Your task to perform on an android device: When is my next meeting? Image 0: 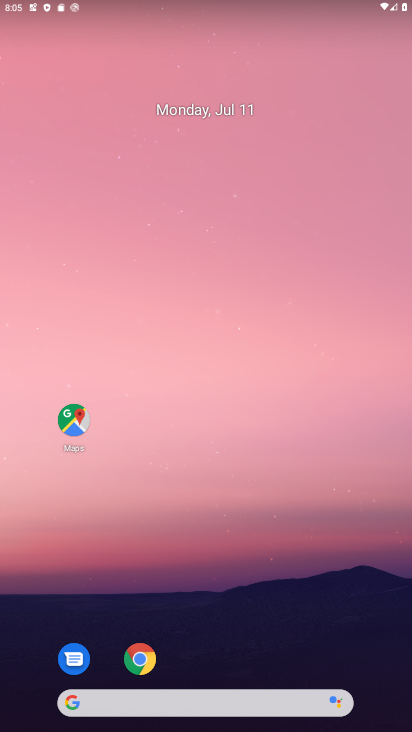
Step 0: drag from (189, 629) to (256, 254)
Your task to perform on an android device: When is my next meeting? Image 1: 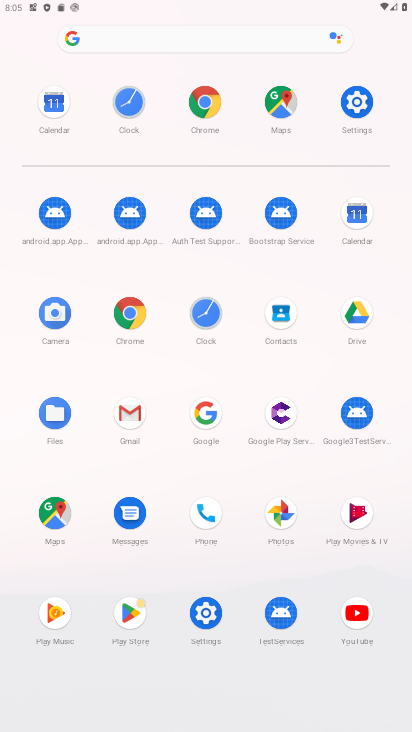
Step 1: click (198, 608)
Your task to perform on an android device: When is my next meeting? Image 2: 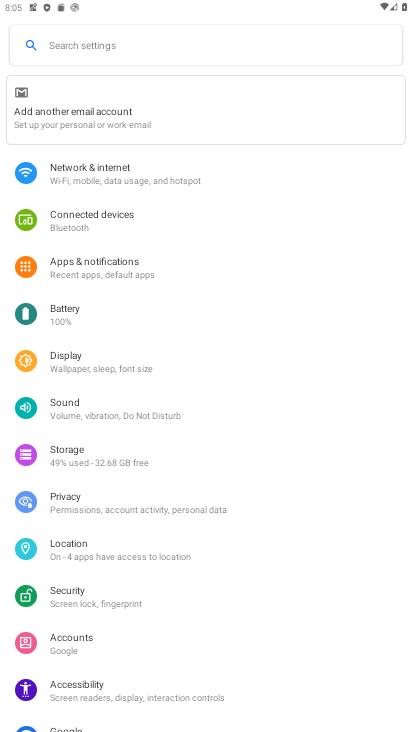
Step 2: press home button
Your task to perform on an android device: When is my next meeting? Image 3: 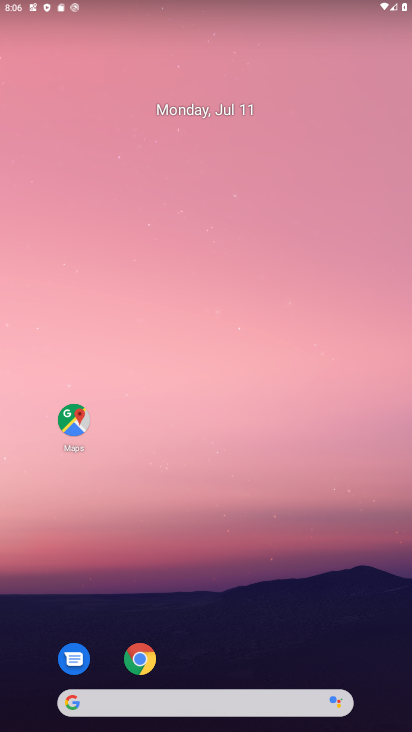
Step 3: drag from (164, 669) to (219, 105)
Your task to perform on an android device: When is my next meeting? Image 4: 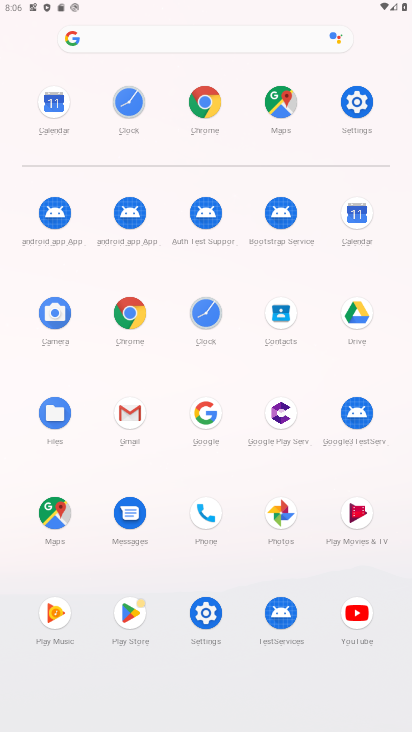
Step 4: click (354, 208)
Your task to perform on an android device: When is my next meeting? Image 5: 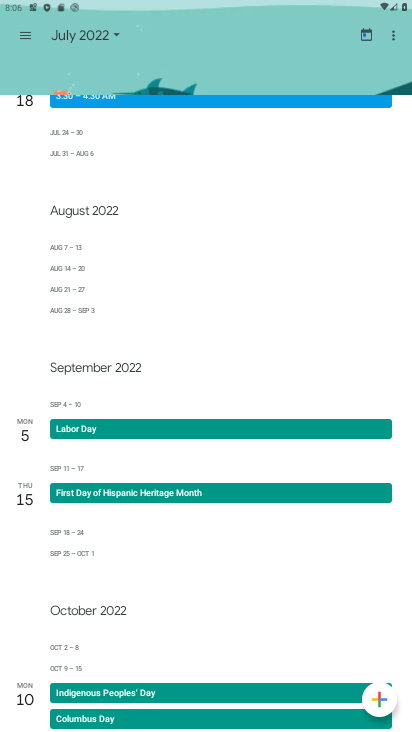
Step 5: click (80, 40)
Your task to perform on an android device: When is my next meeting? Image 6: 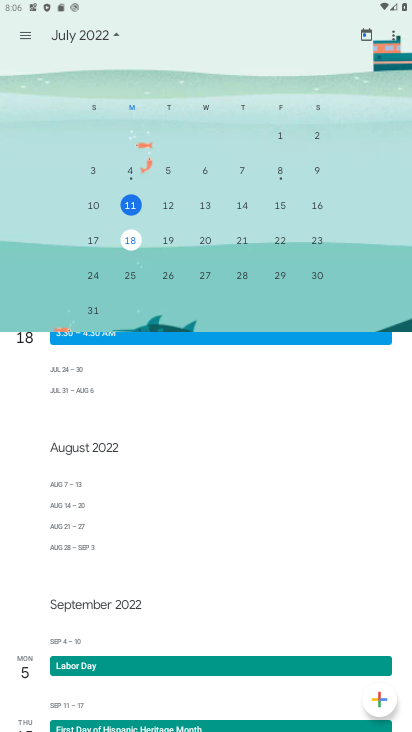
Step 6: click (134, 197)
Your task to perform on an android device: When is my next meeting? Image 7: 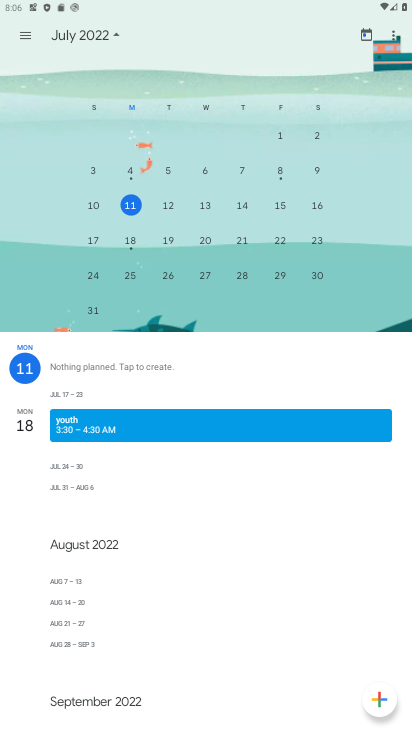
Step 7: click (83, 428)
Your task to perform on an android device: When is my next meeting? Image 8: 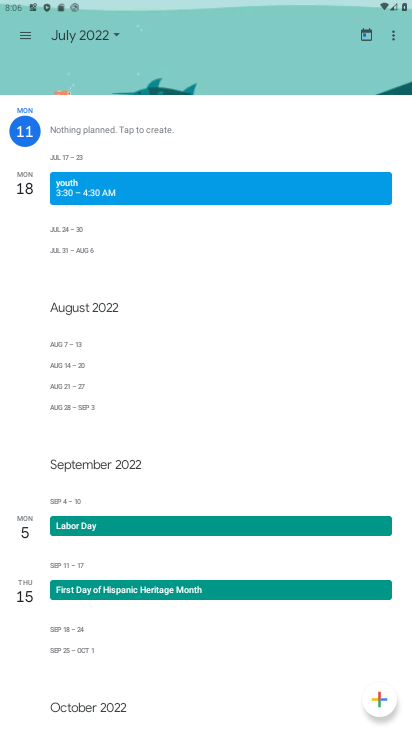
Step 8: task complete